Your task to perform on an android device: make emails show in primary in the gmail app Image 0: 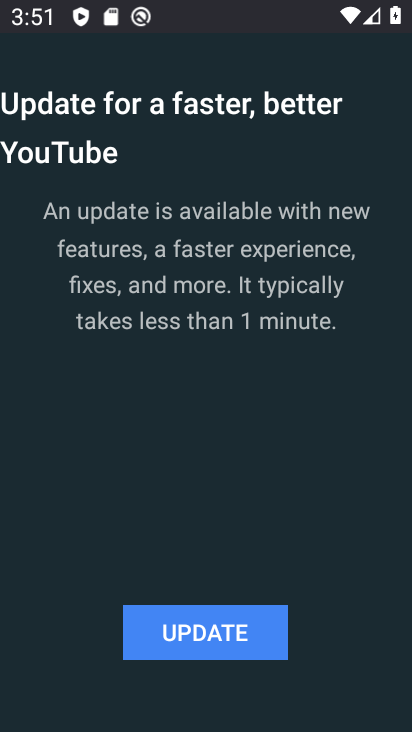
Step 0: click (200, 642)
Your task to perform on an android device: make emails show in primary in the gmail app Image 1: 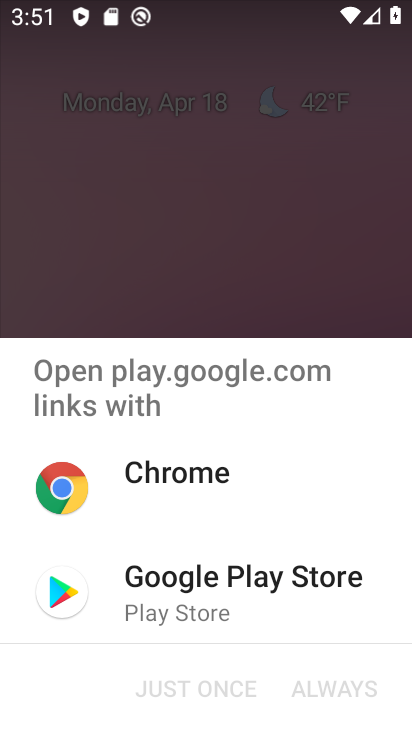
Step 1: press home button
Your task to perform on an android device: make emails show in primary in the gmail app Image 2: 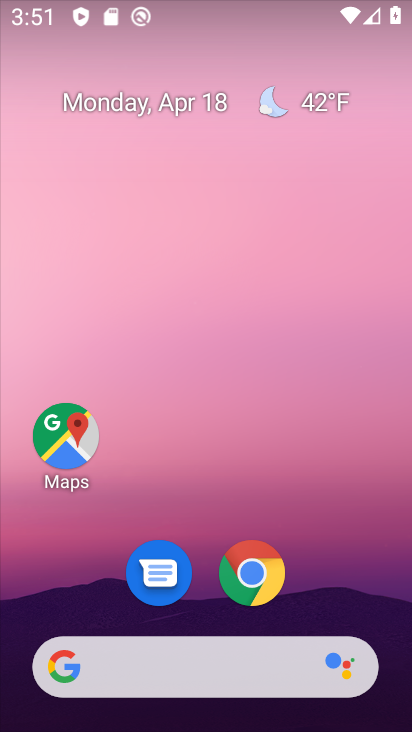
Step 2: drag from (207, 638) to (237, 184)
Your task to perform on an android device: make emails show in primary in the gmail app Image 3: 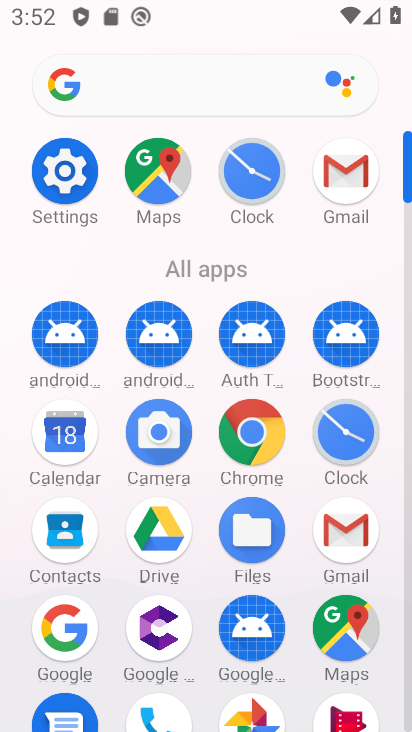
Step 3: click (328, 537)
Your task to perform on an android device: make emails show in primary in the gmail app Image 4: 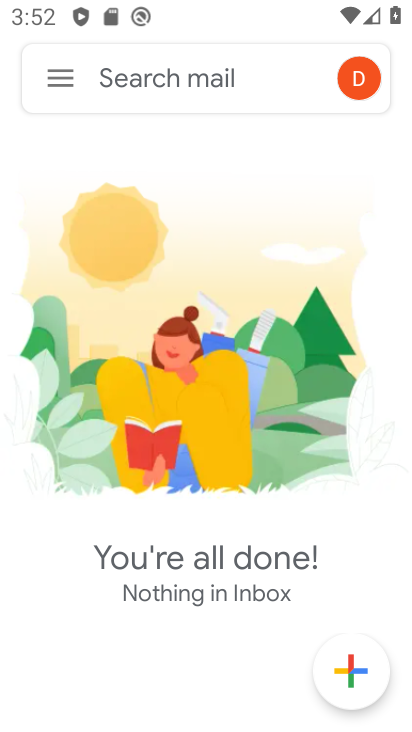
Step 4: click (61, 78)
Your task to perform on an android device: make emails show in primary in the gmail app Image 5: 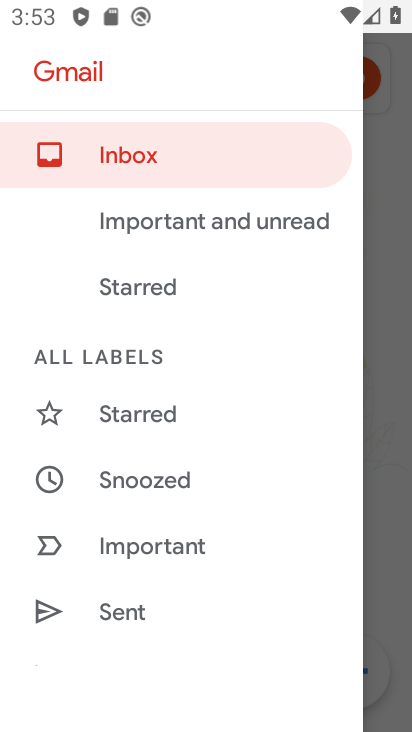
Step 5: drag from (154, 611) to (154, 239)
Your task to perform on an android device: make emails show in primary in the gmail app Image 6: 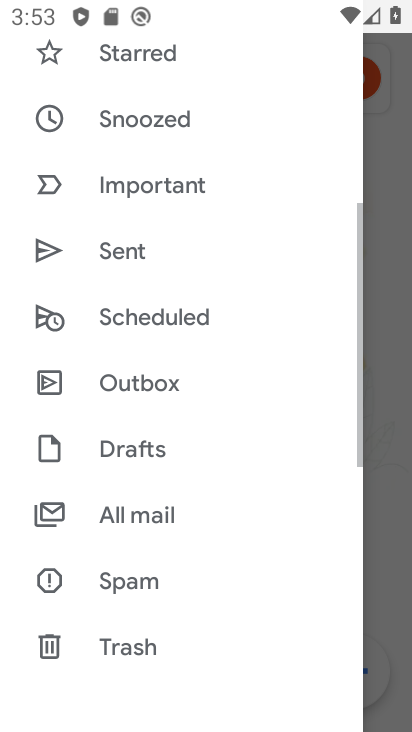
Step 6: drag from (164, 669) to (148, 284)
Your task to perform on an android device: make emails show in primary in the gmail app Image 7: 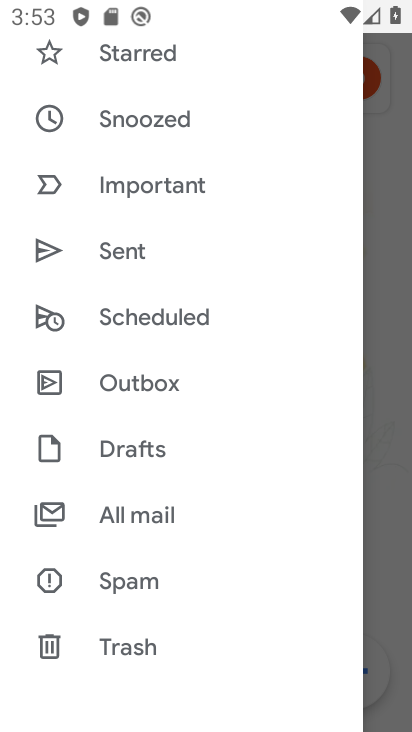
Step 7: drag from (131, 673) to (141, 331)
Your task to perform on an android device: make emails show in primary in the gmail app Image 8: 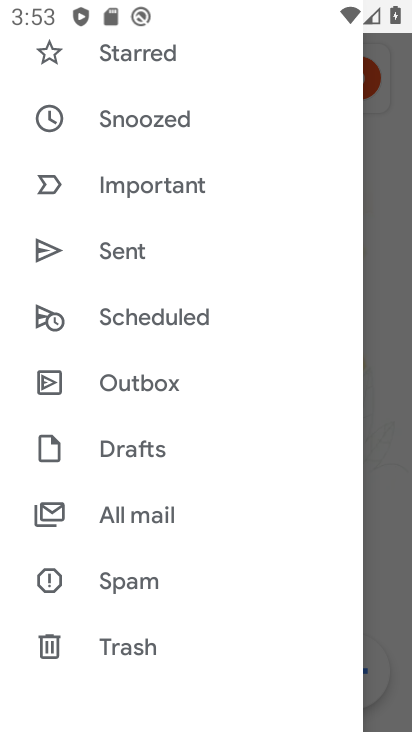
Step 8: drag from (197, 569) to (211, 100)
Your task to perform on an android device: make emails show in primary in the gmail app Image 9: 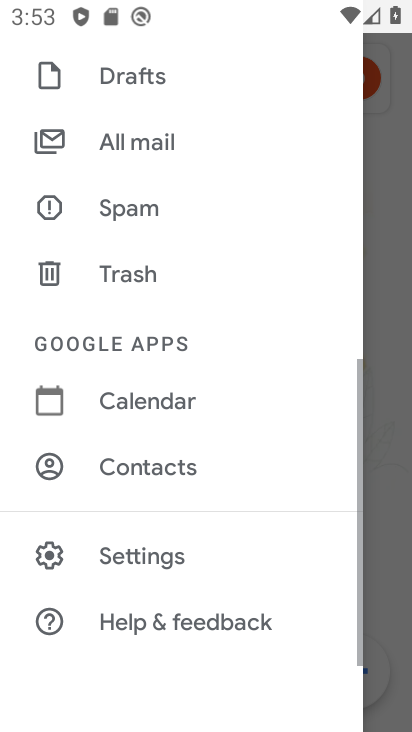
Step 9: click (156, 559)
Your task to perform on an android device: make emails show in primary in the gmail app Image 10: 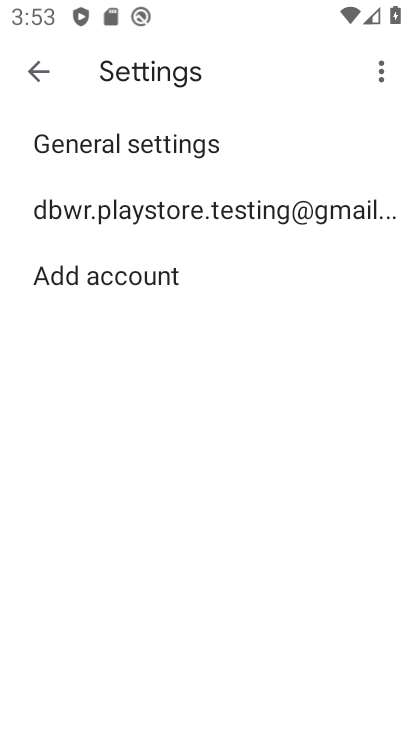
Step 10: click (86, 216)
Your task to perform on an android device: make emails show in primary in the gmail app Image 11: 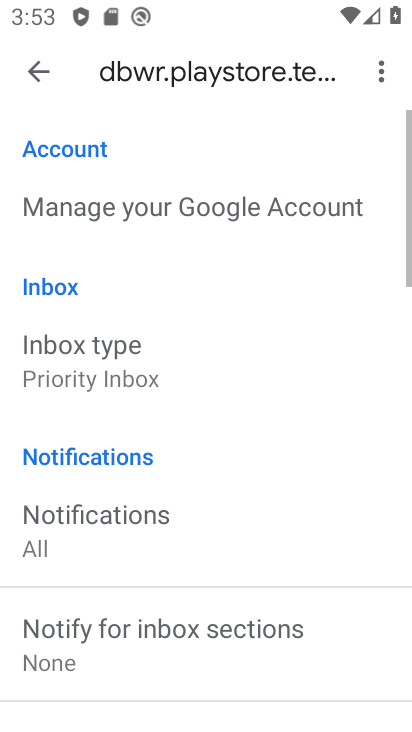
Step 11: click (80, 372)
Your task to perform on an android device: make emails show in primary in the gmail app Image 12: 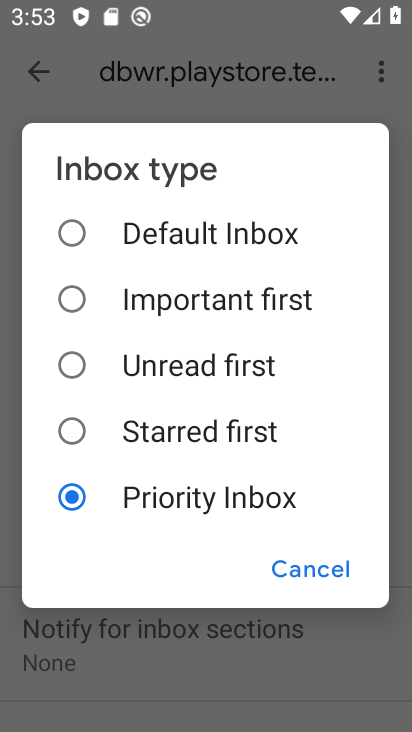
Step 12: click (68, 229)
Your task to perform on an android device: make emails show in primary in the gmail app Image 13: 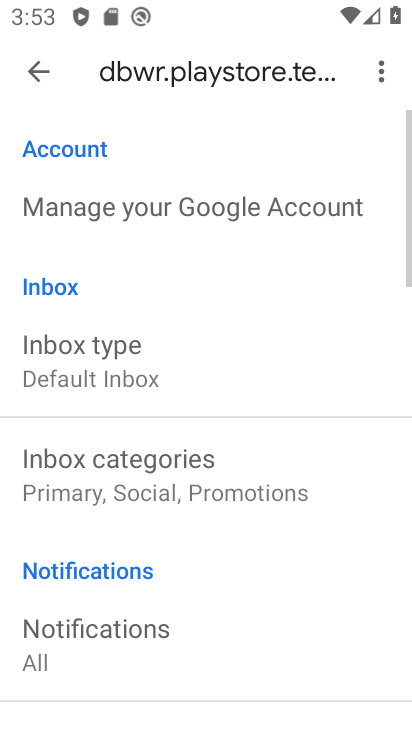
Step 13: click (129, 485)
Your task to perform on an android device: make emails show in primary in the gmail app Image 14: 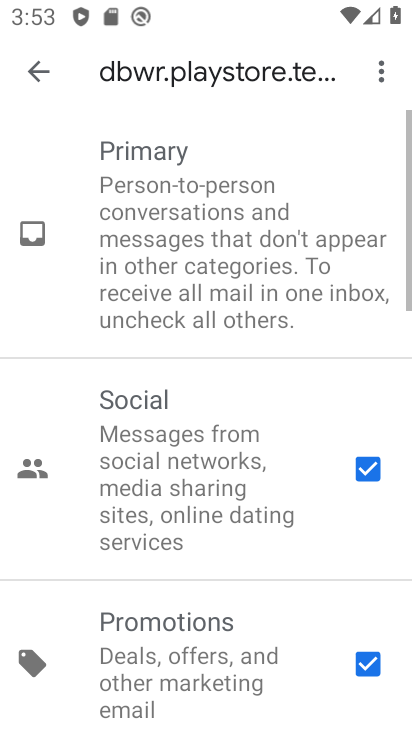
Step 14: click (368, 464)
Your task to perform on an android device: make emails show in primary in the gmail app Image 15: 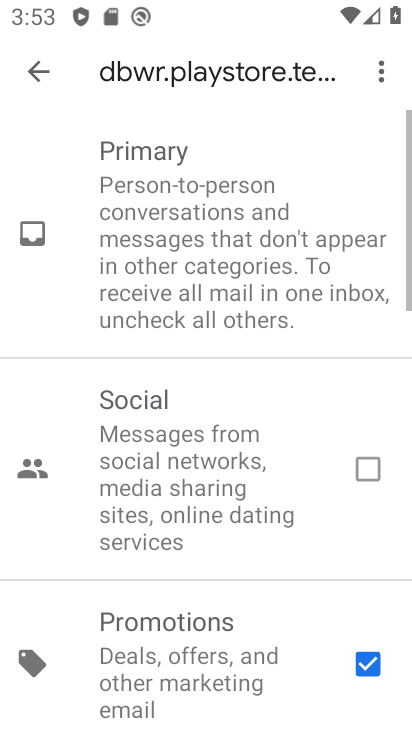
Step 15: click (366, 666)
Your task to perform on an android device: make emails show in primary in the gmail app Image 16: 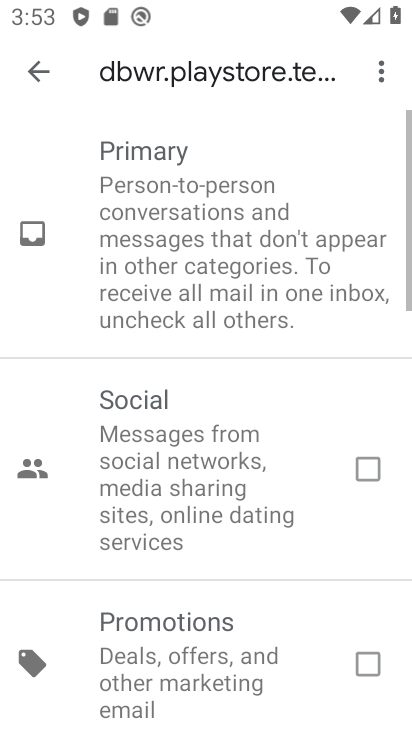
Step 16: click (35, 72)
Your task to perform on an android device: make emails show in primary in the gmail app Image 17: 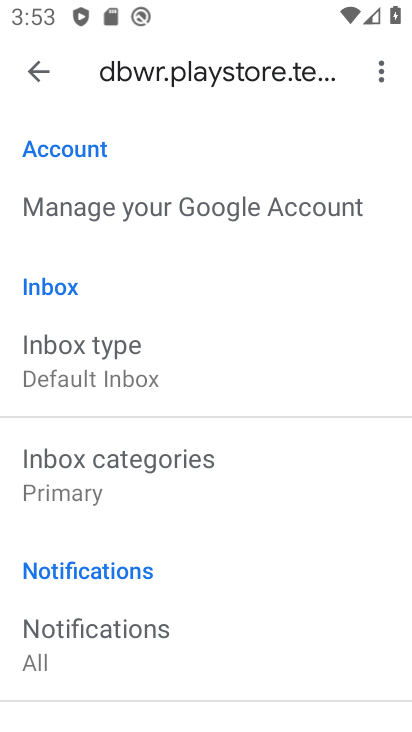
Step 17: task complete